Your task to perform on an android device: change notifications settings Image 0: 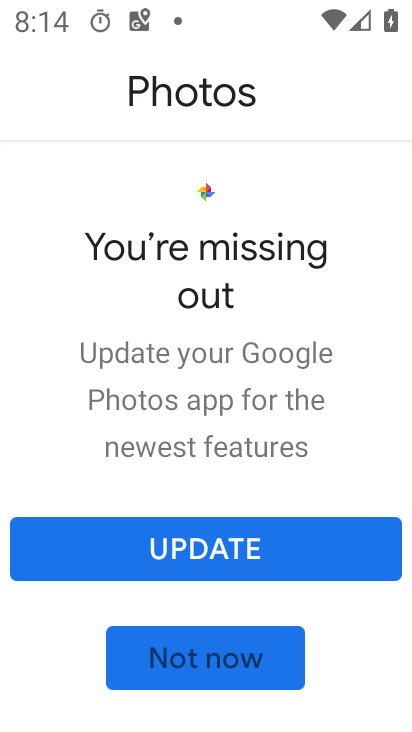
Step 0: press home button
Your task to perform on an android device: change notifications settings Image 1: 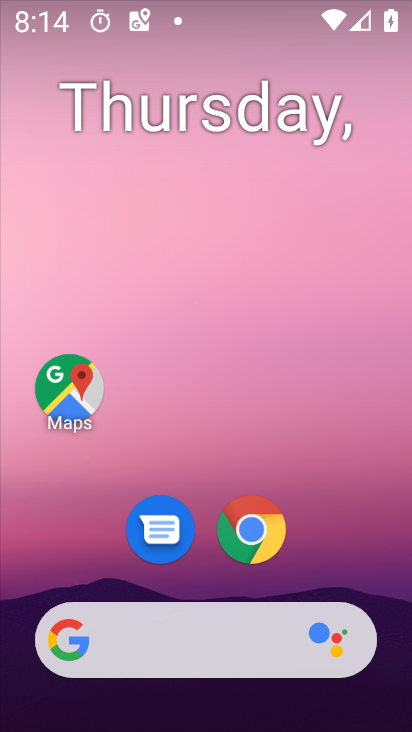
Step 1: drag from (396, 708) to (363, 140)
Your task to perform on an android device: change notifications settings Image 2: 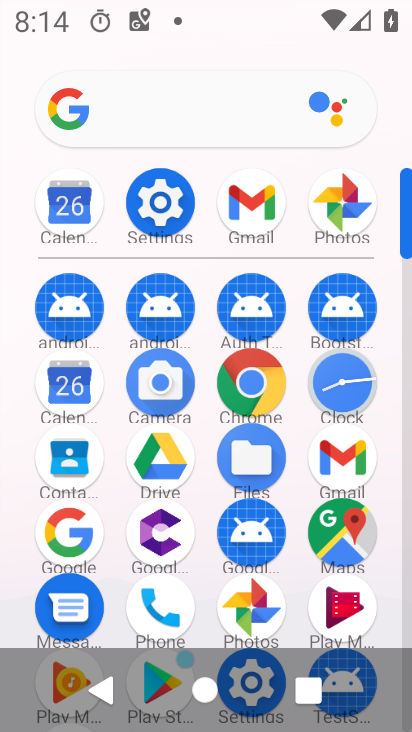
Step 2: click (171, 192)
Your task to perform on an android device: change notifications settings Image 3: 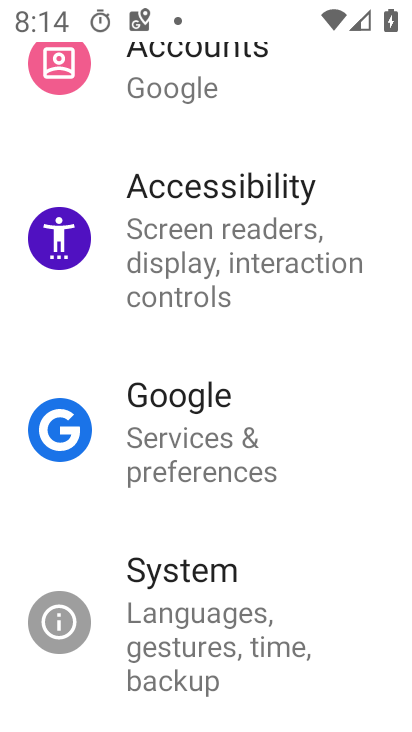
Step 3: drag from (337, 80) to (404, 677)
Your task to perform on an android device: change notifications settings Image 4: 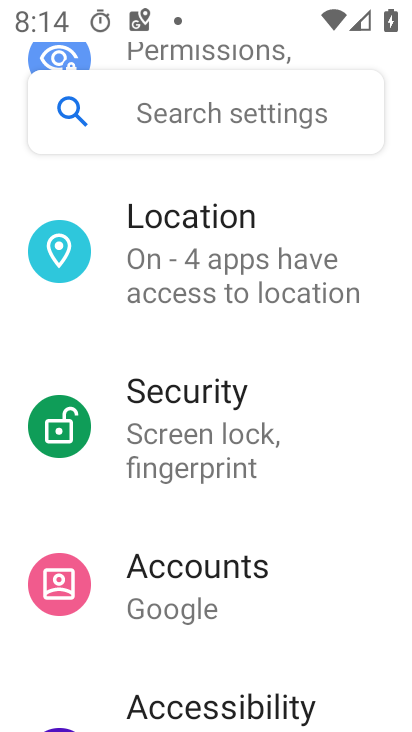
Step 4: drag from (321, 193) to (371, 730)
Your task to perform on an android device: change notifications settings Image 5: 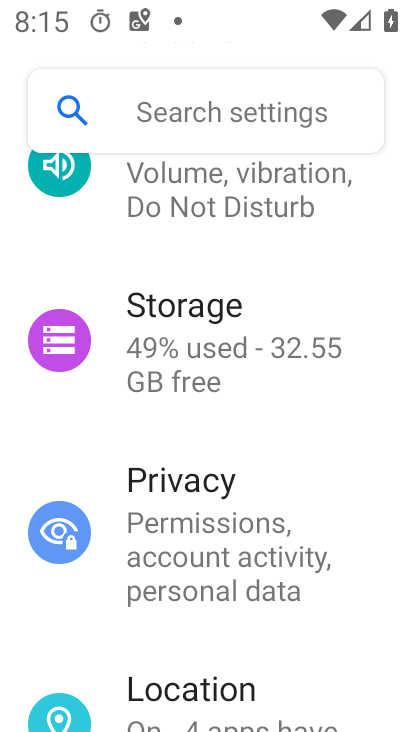
Step 5: drag from (357, 249) to (391, 699)
Your task to perform on an android device: change notifications settings Image 6: 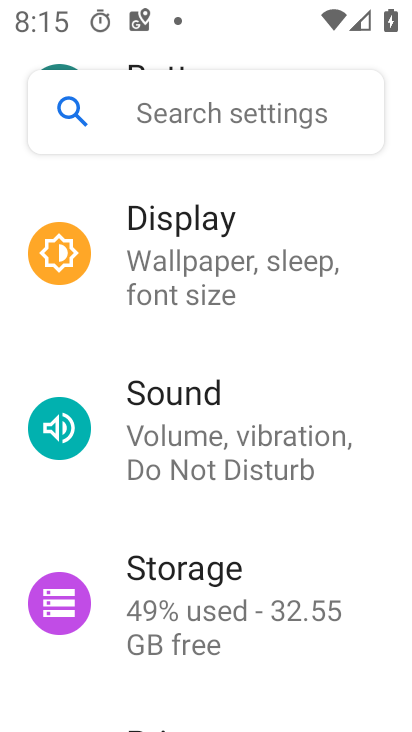
Step 6: drag from (329, 172) to (390, 682)
Your task to perform on an android device: change notifications settings Image 7: 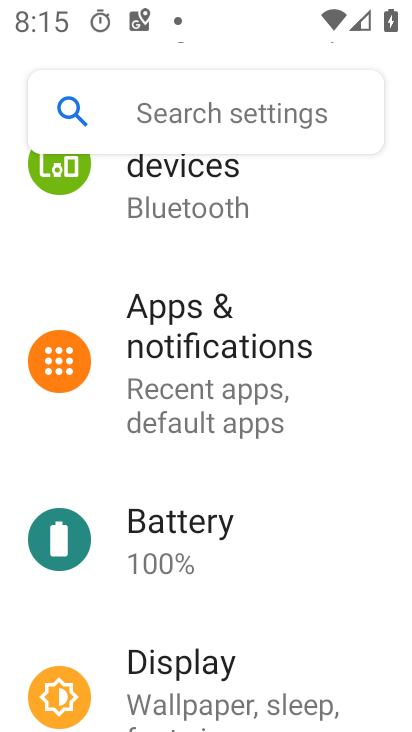
Step 7: click (171, 334)
Your task to perform on an android device: change notifications settings Image 8: 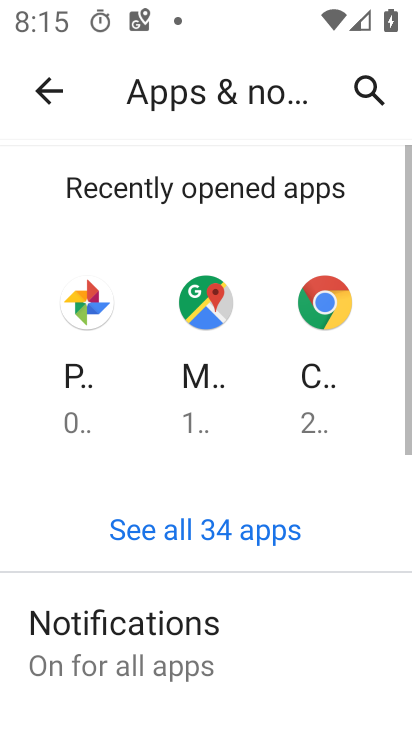
Step 8: click (122, 613)
Your task to perform on an android device: change notifications settings Image 9: 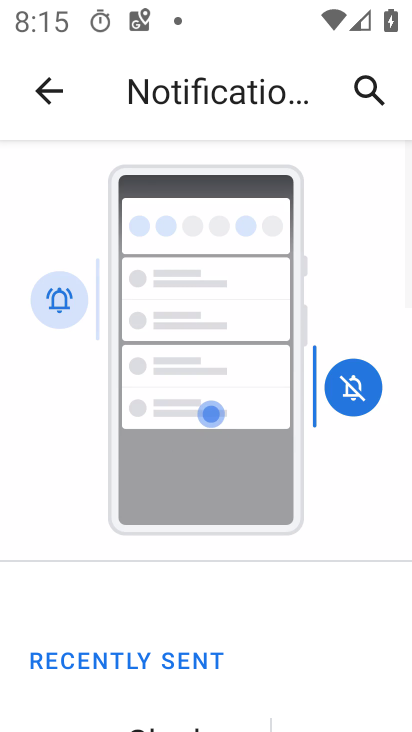
Step 9: drag from (330, 696) to (289, 50)
Your task to perform on an android device: change notifications settings Image 10: 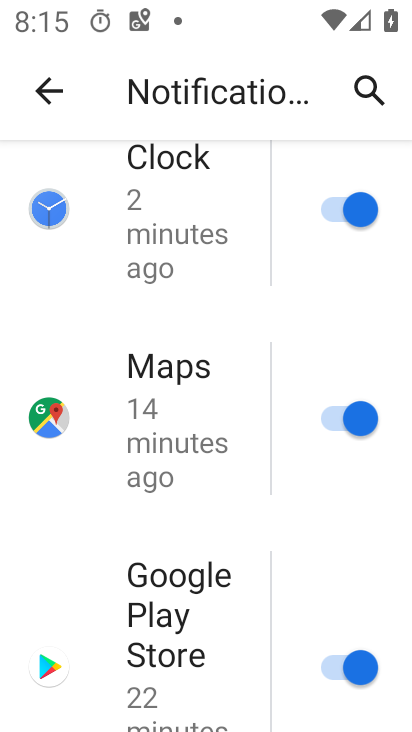
Step 10: drag from (279, 722) to (237, 208)
Your task to perform on an android device: change notifications settings Image 11: 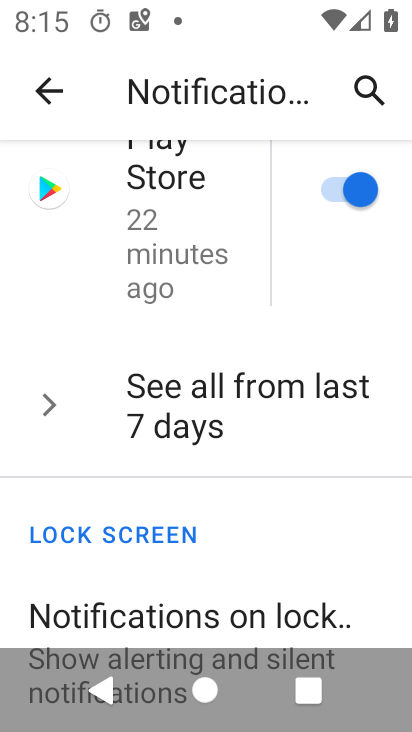
Step 11: drag from (342, 616) to (285, 219)
Your task to perform on an android device: change notifications settings Image 12: 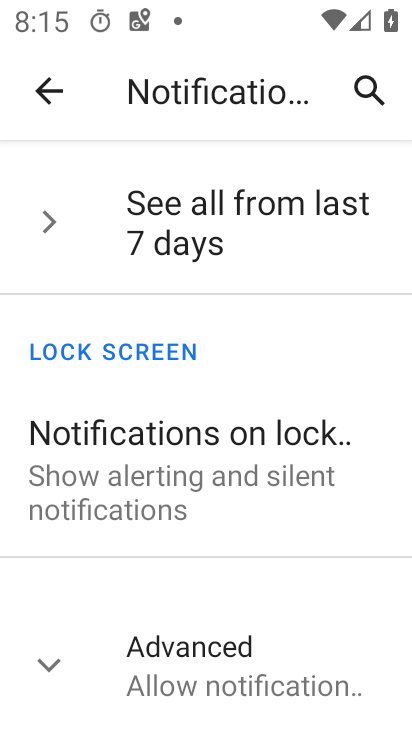
Step 12: click (51, 662)
Your task to perform on an android device: change notifications settings Image 13: 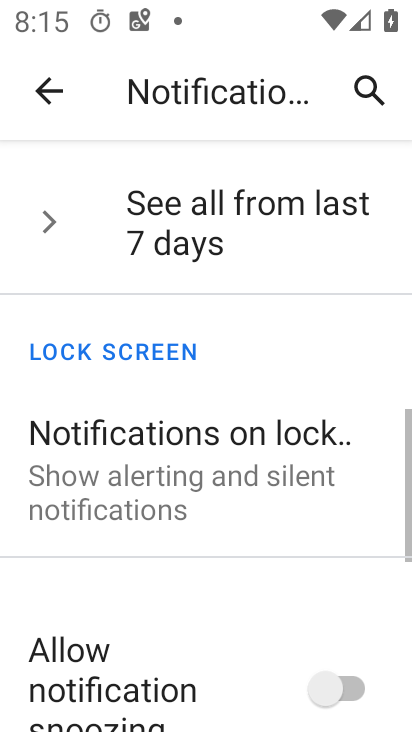
Step 13: task complete